Your task to perform on an android device: turn off priority inbox in the gmail app Image 0: 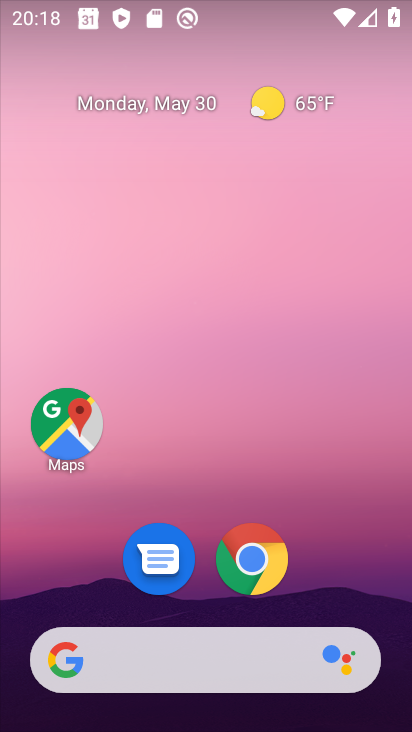
Step 0: drag from (195, 493) to (253, 22)
Your task to perform on an android device: turn off priority inbox in the gmail app Image 1: 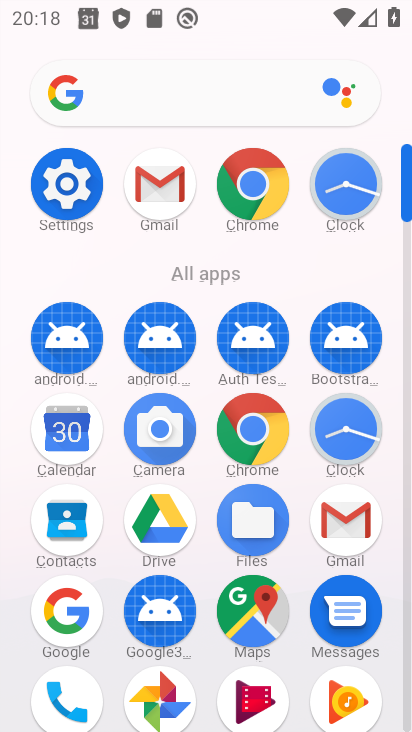
Step 1: click (151, 182)
Your task to perform on an android device: turn off priority inbox in the gmail app Image 2: 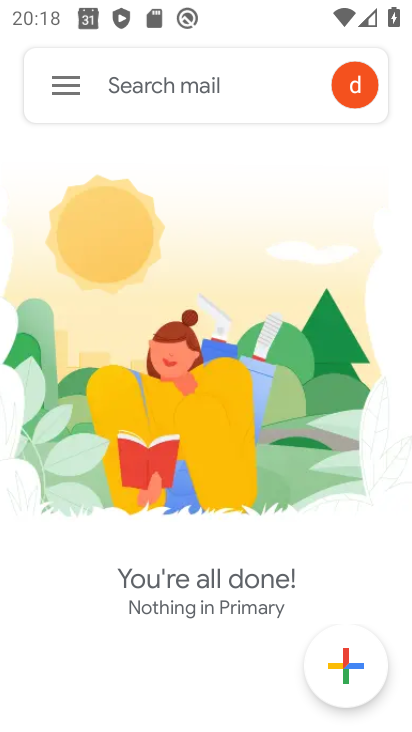
Step 2: click (72, 84)
Your task to perform on an android device: turn off priority inbox in the gmail app Image 3: 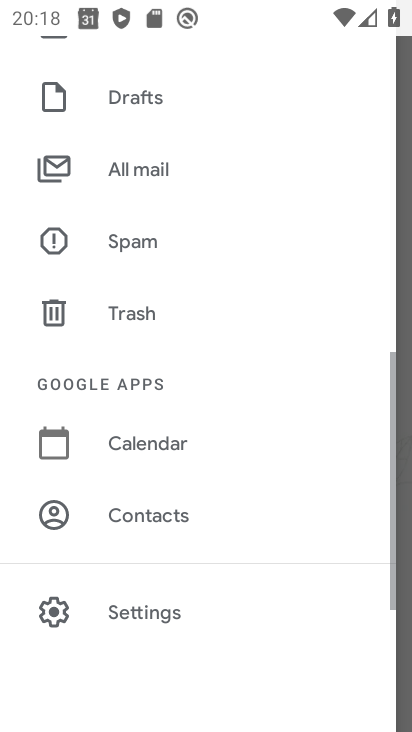
Step 3: click (136, 611)
Your task to perform on an android device: turn off priority inbox in the gmail app Image 4: 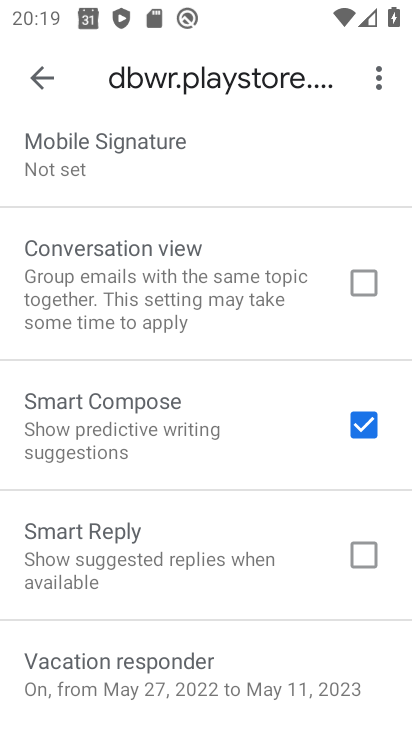
Step 4: drag from (168, 174) to (157, 714)
Your task to perform on an android device: turn off priority inbox in the gmail app Image 5: 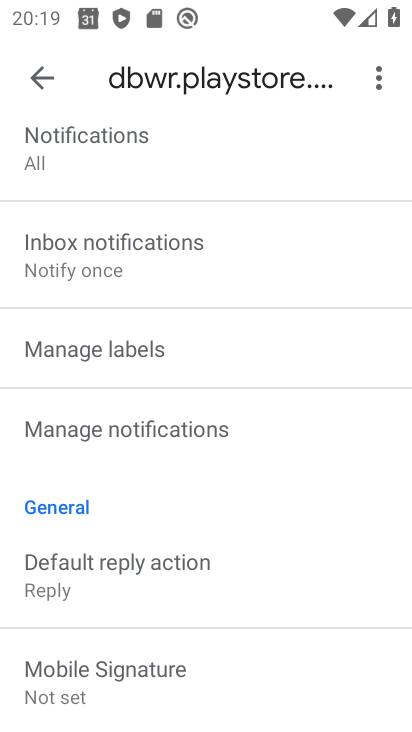
Step 5: drag from (165, 238) to (119, 728)
Your task to perform on an android device: turn off priority inbox in the gmail app Image 6: 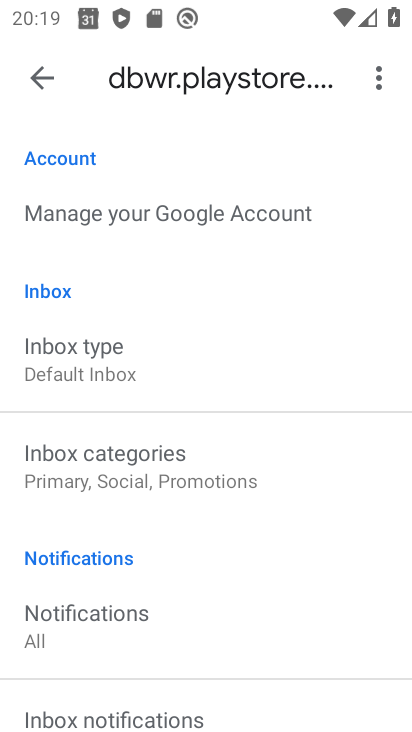
Step 6: click (69, 373)
Your task to perform on an android device: turn off priority inbox in the gmail app Image 7: 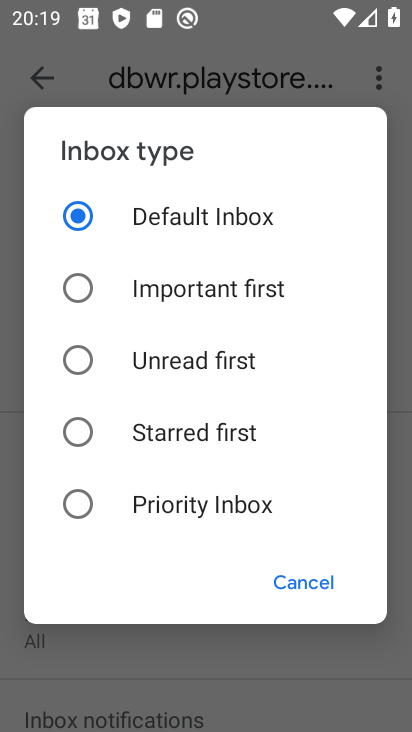
Step 7: click (77, 215)
Your task to perform on an android device: turn off priority inbox in the gmail app Image 8: 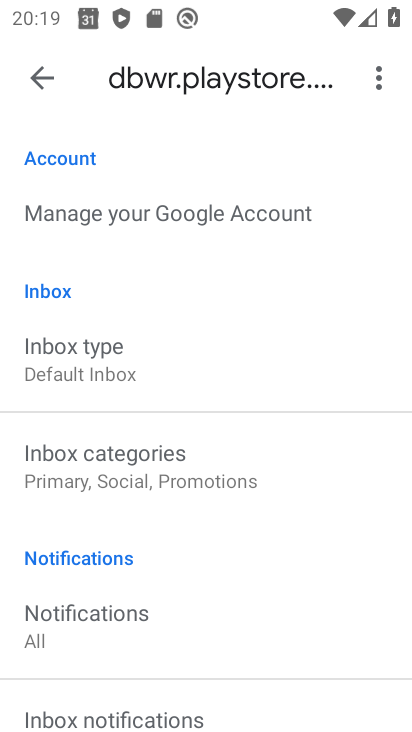
Step 8: task complete